Your task to perform on an android device: Check the weather Image 0: 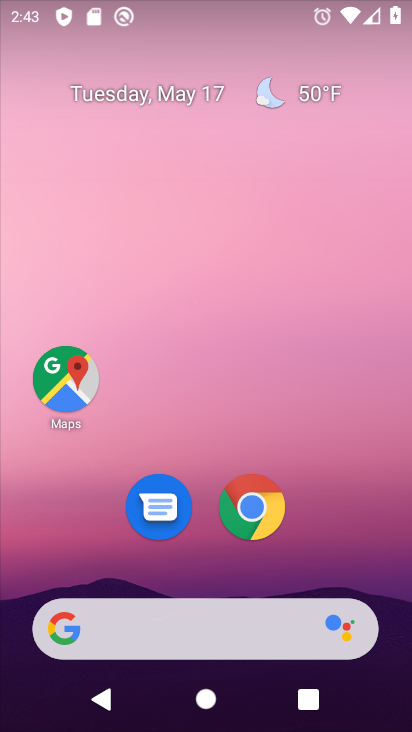
Step 0: drag from (340, 526) to (223, 102)
Your task to perform on an android device: Check the weather Image 1: 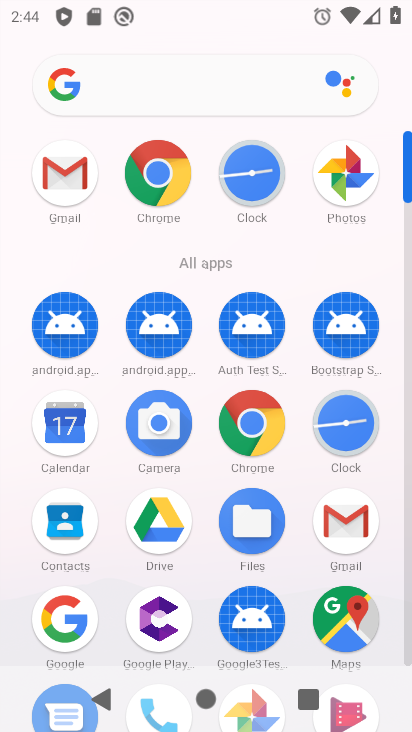
Step 1: click (68, 619)
Your task to perform on an android device: Check the weather Image 2: 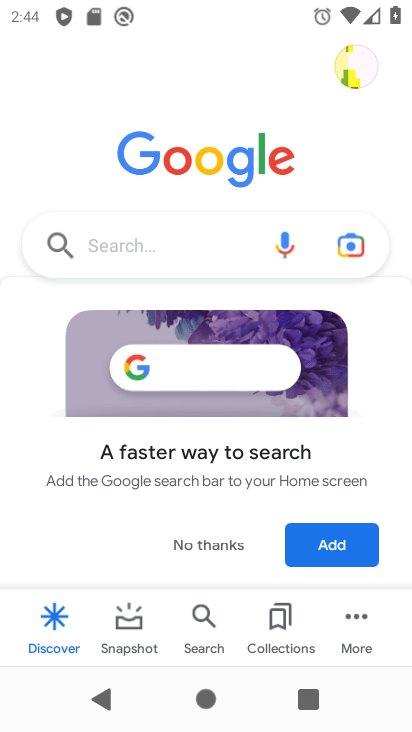
Step 2: click (203, 550)
Your task to perform on an android device: Check the weather Image 3: 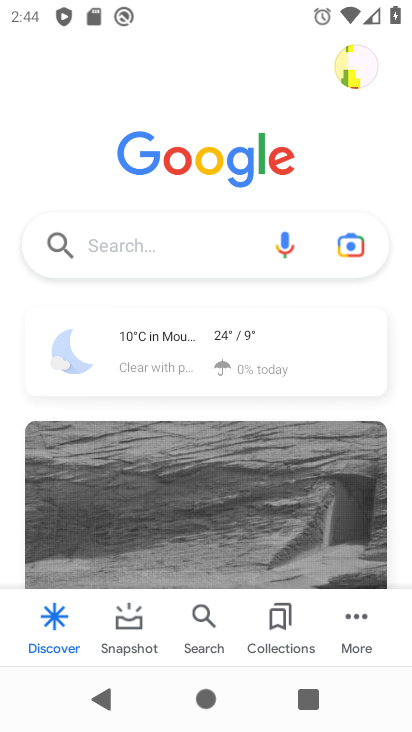
Step 3: click (154, 340)
Your task to perform on an android device: Check the weather Image 4: 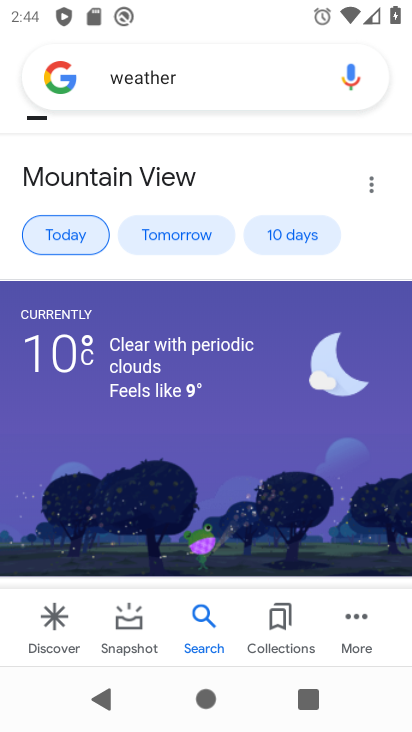
Step 4: task complete